Your task to perform on an android device: open chrome privacy settings Image 0: 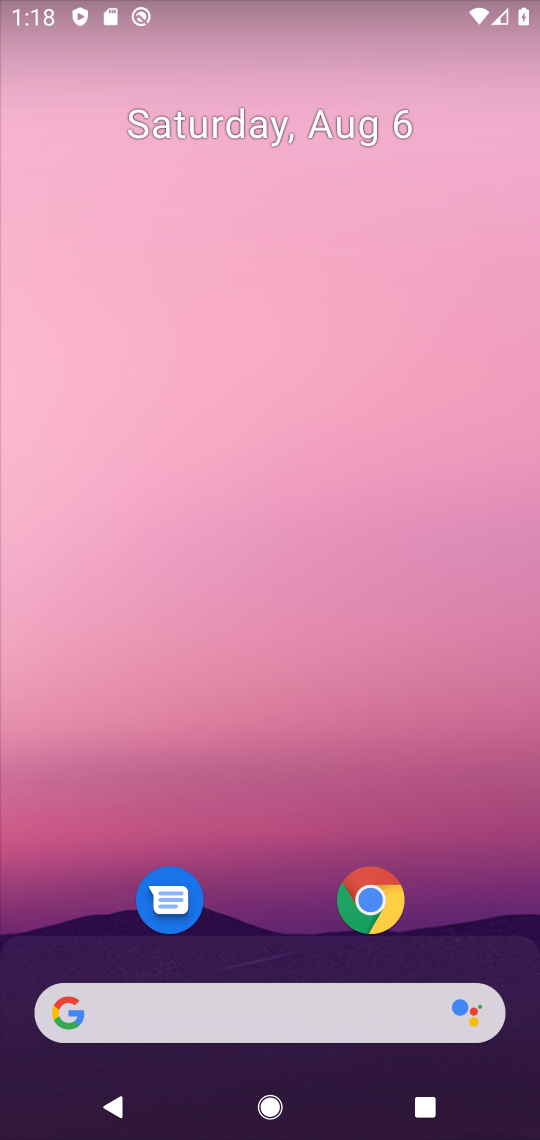
Step 0: click (370, 916)
Your task to perform on an android device: open chrome privacy settings Image 1: 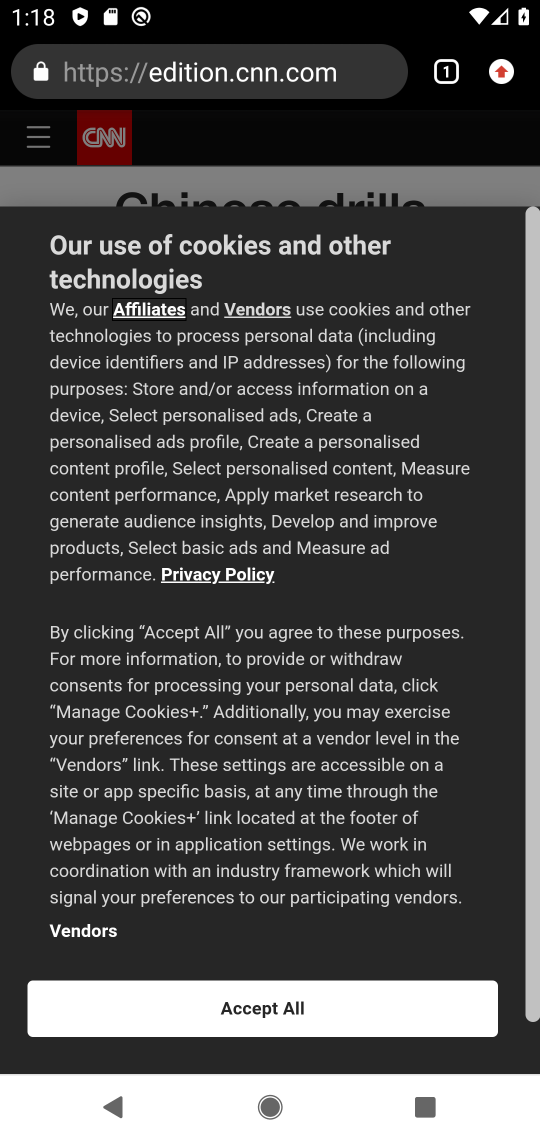
Step 1: click (506, 70)
Your task to perform on an android device: open chrome privacy settings Image 2: 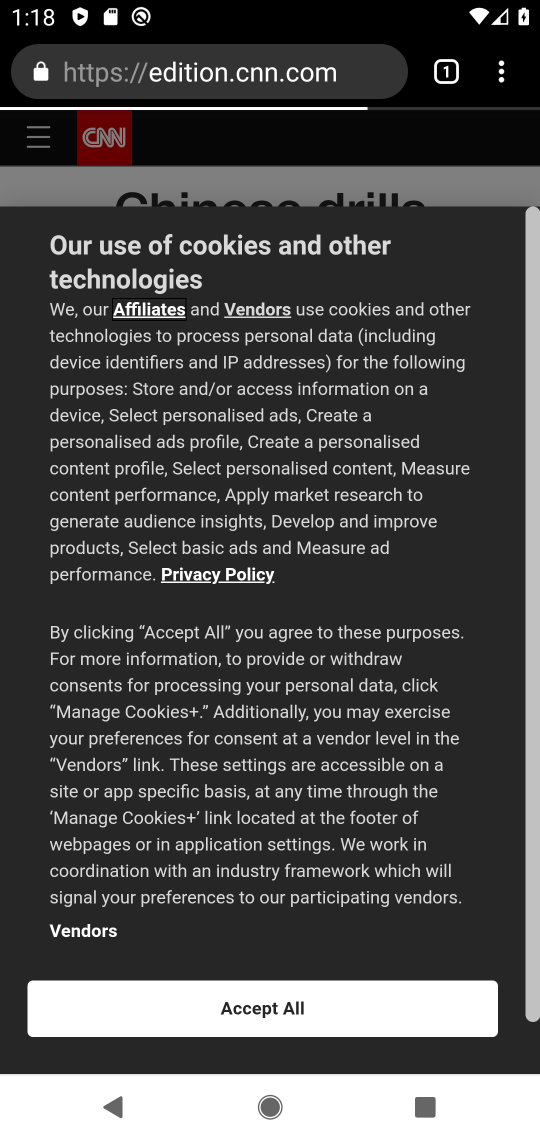
Step 2: click (500, 61)
Your task to perform on an android device: open chrome privacy settings Image 3: 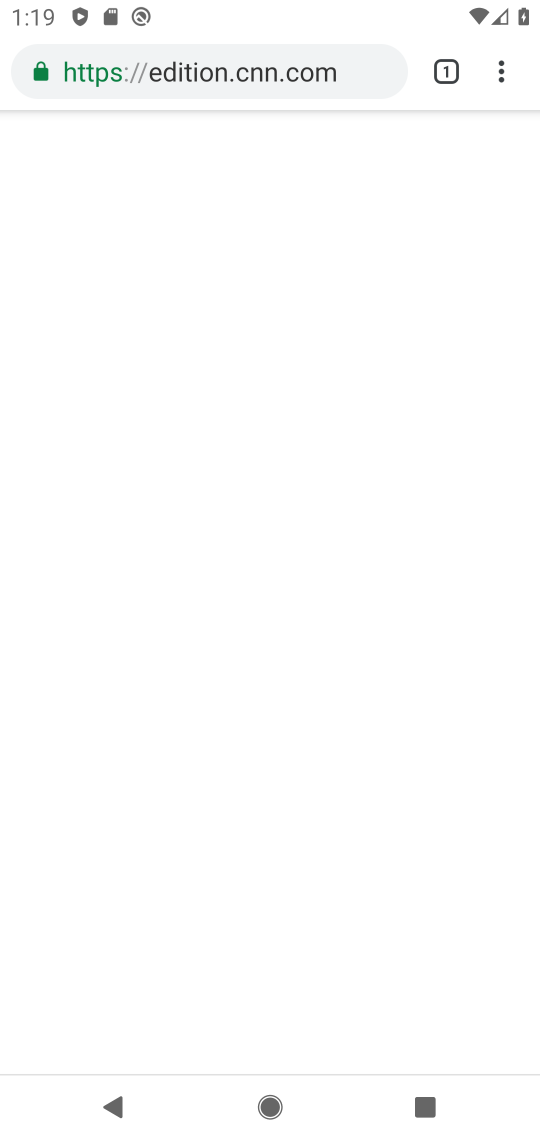
Step 3: click (496, 77)
Your task to perform on an android device: open chrome privacy settings Image 4: 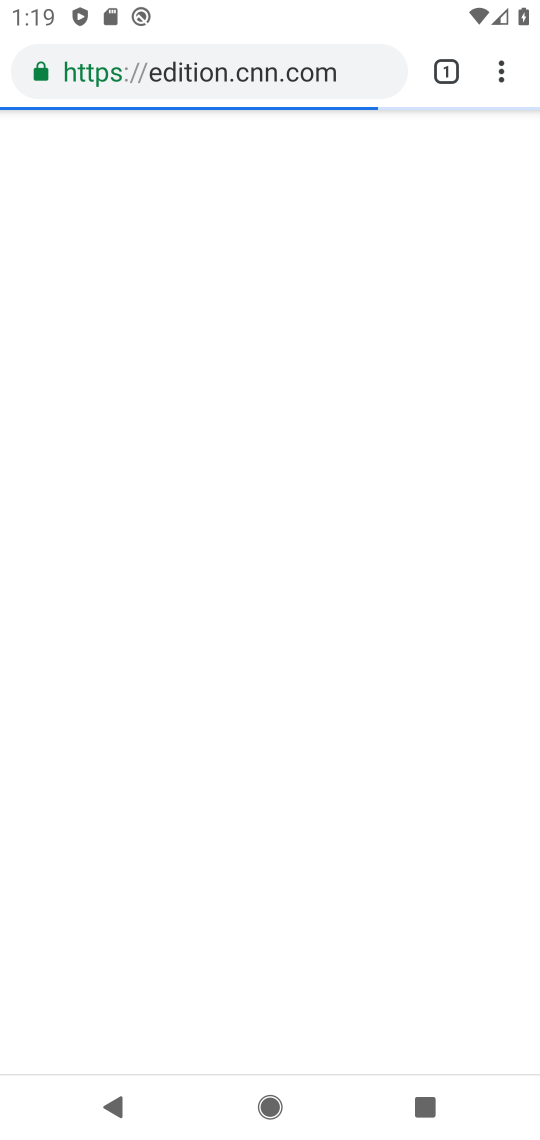
Step 4: click (492, 64)
Your task to perform on an android device: open chrome privacy settings Image 5: 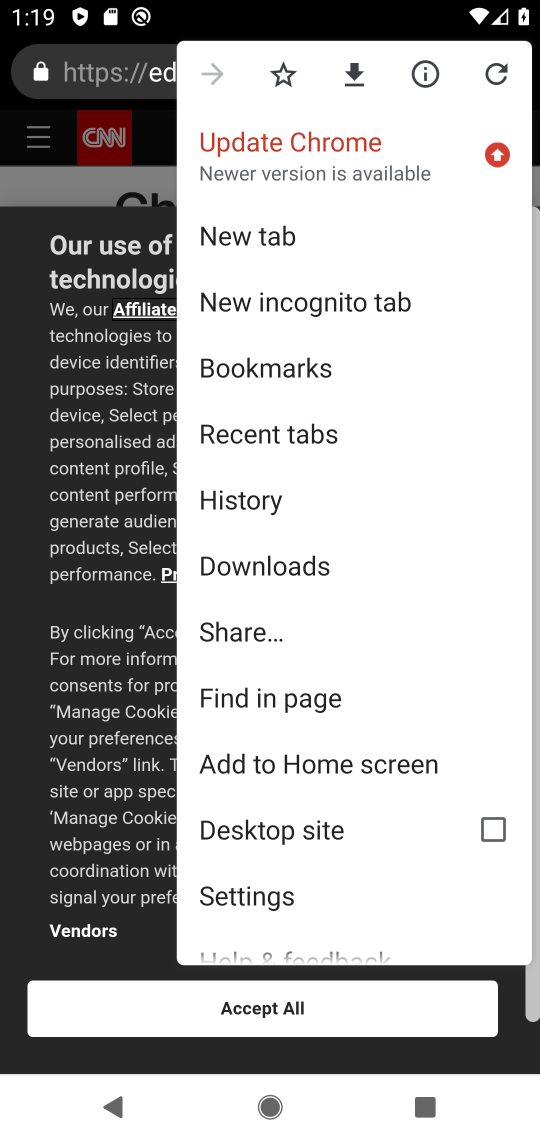
Step 5: click (310, 891)
Your task to perform on an android device: open chrome privacy settings Image 6: 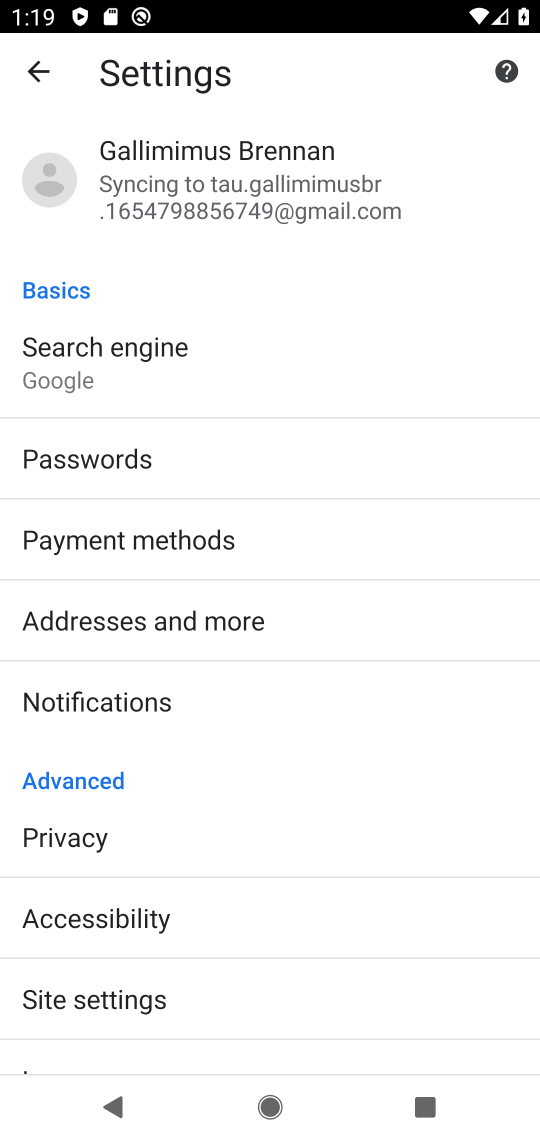
Step 6: click (108, 847)
Your task to perform on an android device: open chrome privacy settings Image 7: 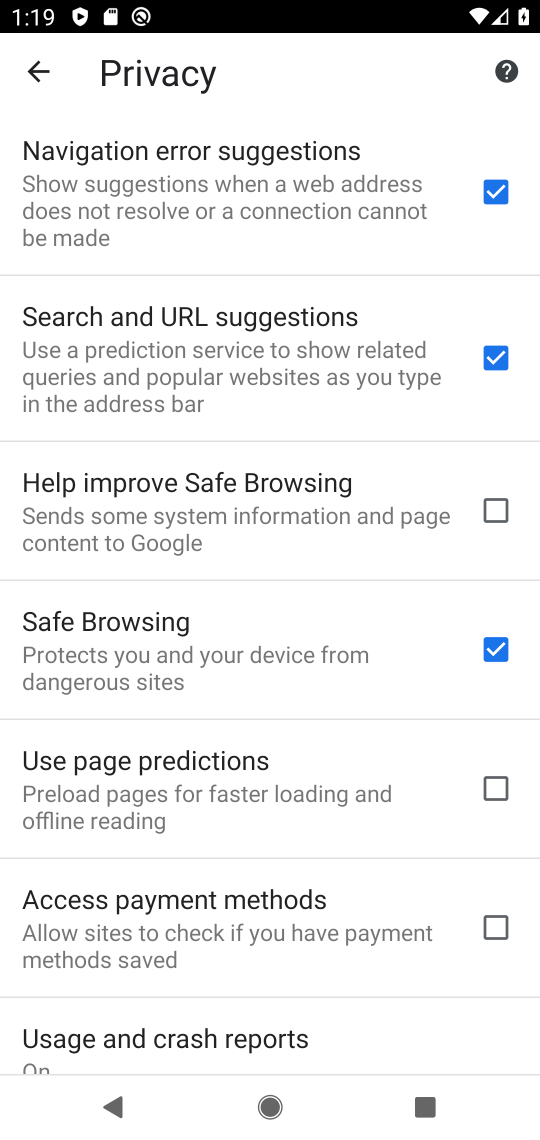
Step 7: task complete